Your task to perform on an android device: install app "DoorDash - Food Delivery" Image 0: 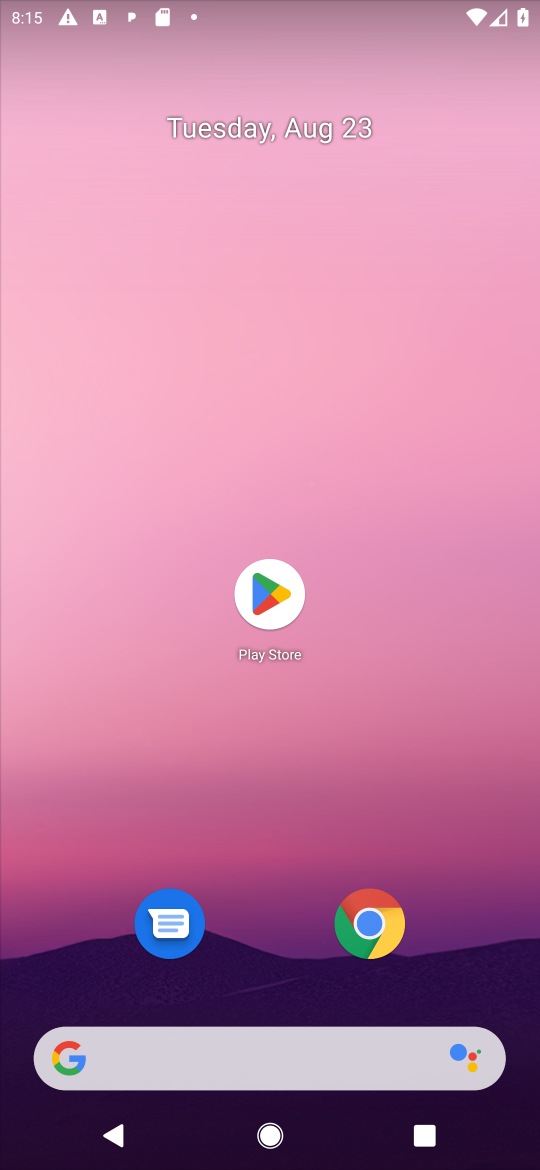
Step 0: click (276, 597)
Your task to perform on an android device: install app "DoorDash - Food Delivery" Image 1: 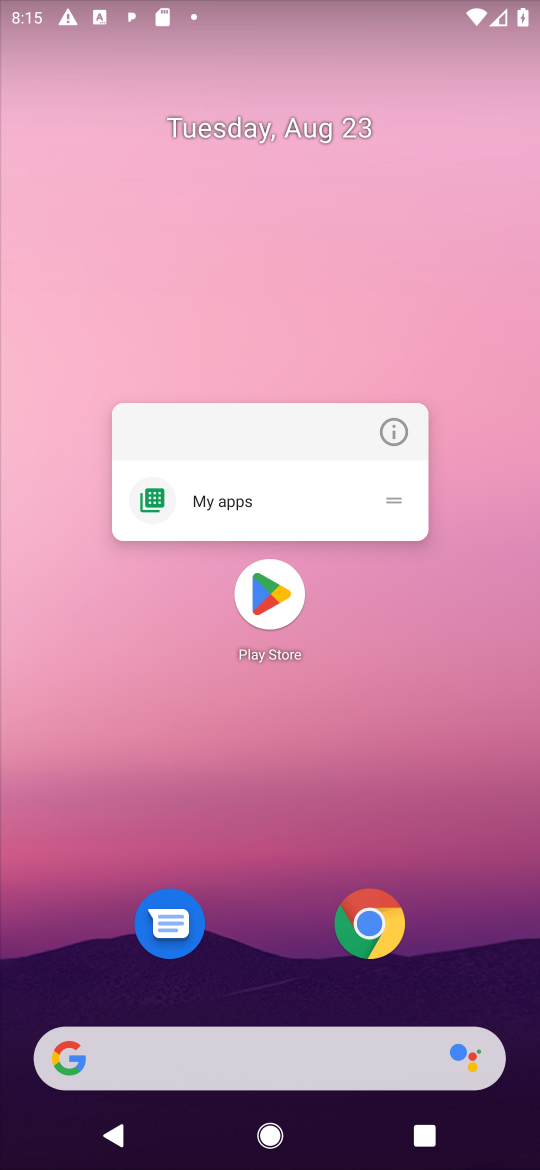
Step 1: click (271, 602)
Your task to perform on an android device: install app "DoorDash - Food Delivery" Image 2: 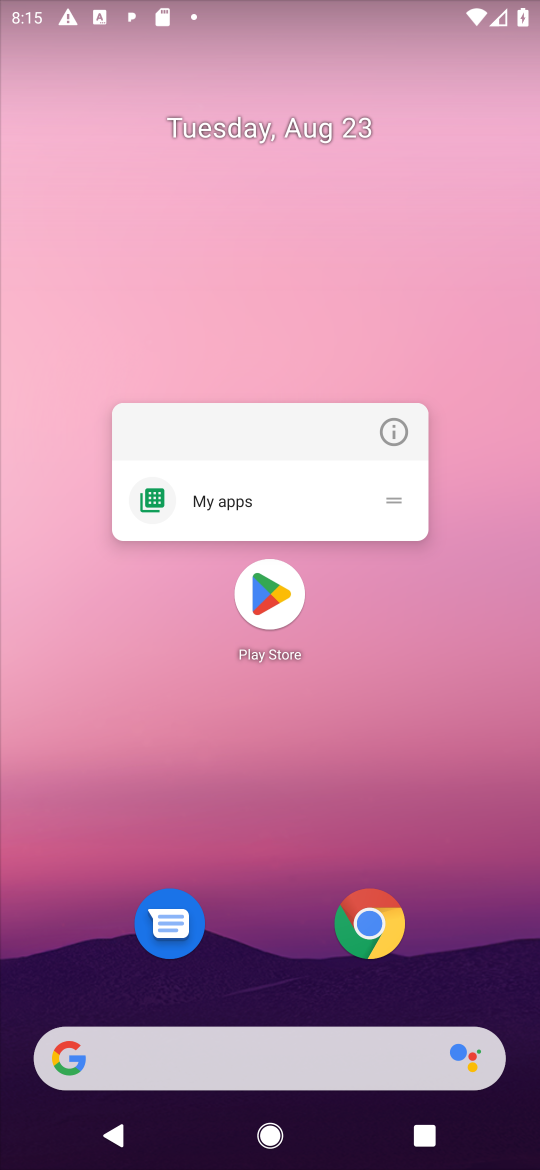
Step 2: click (267, 596)
Your task to perform on an android device: install app "DoorDash - Food Delivery" Image 3: 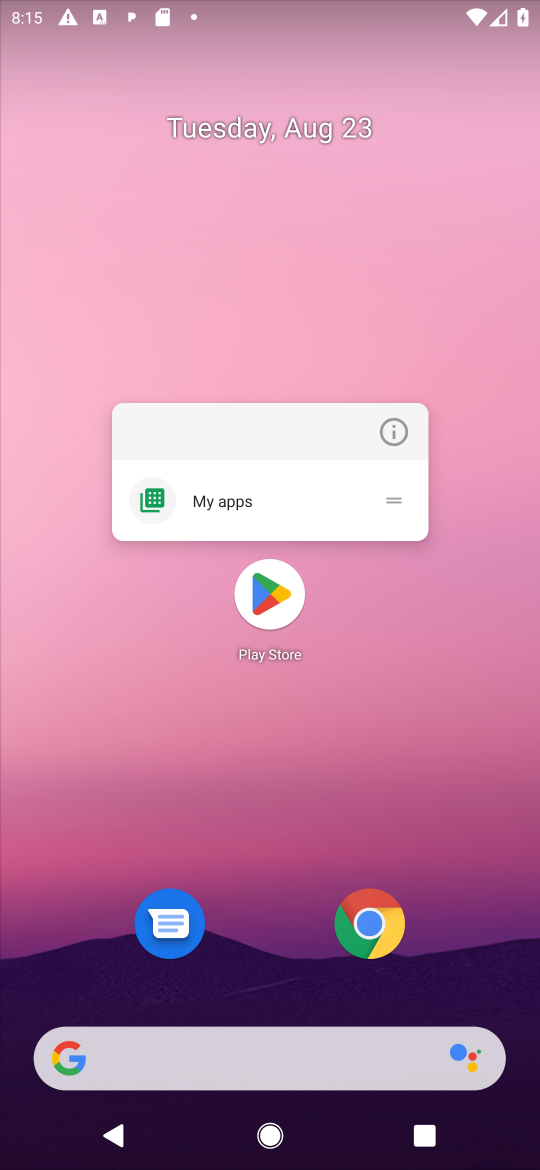
Step 3: click (267, 607)
Your task to perform on an android device: install app "DoorDash - Food Delivery" Image 4: 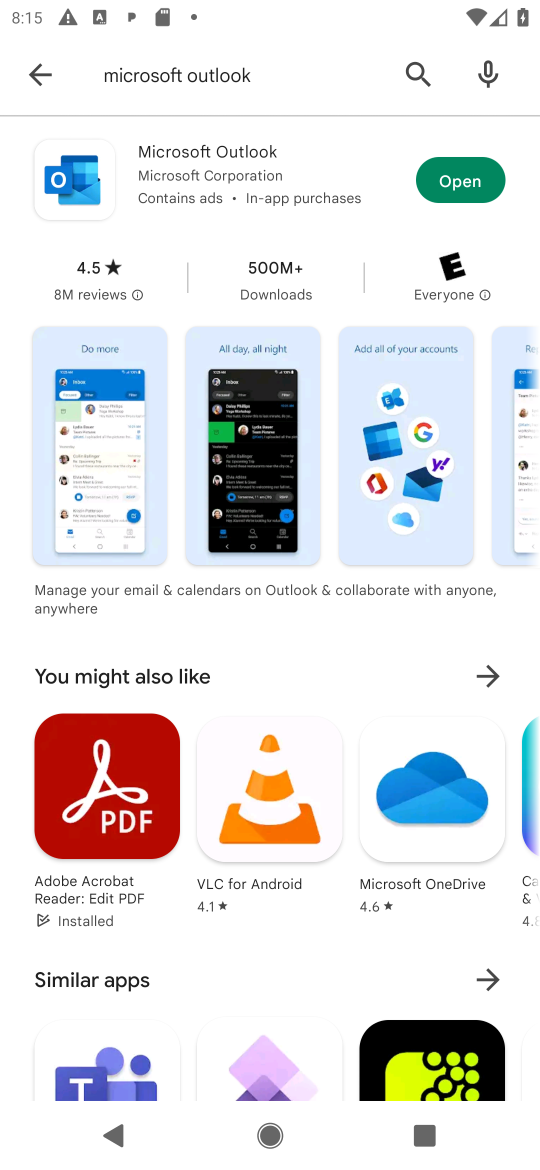
Step 4: click (419, 67)
Your task to perform on an android device: install app "DoorDash - Food Delivery" Image 5: 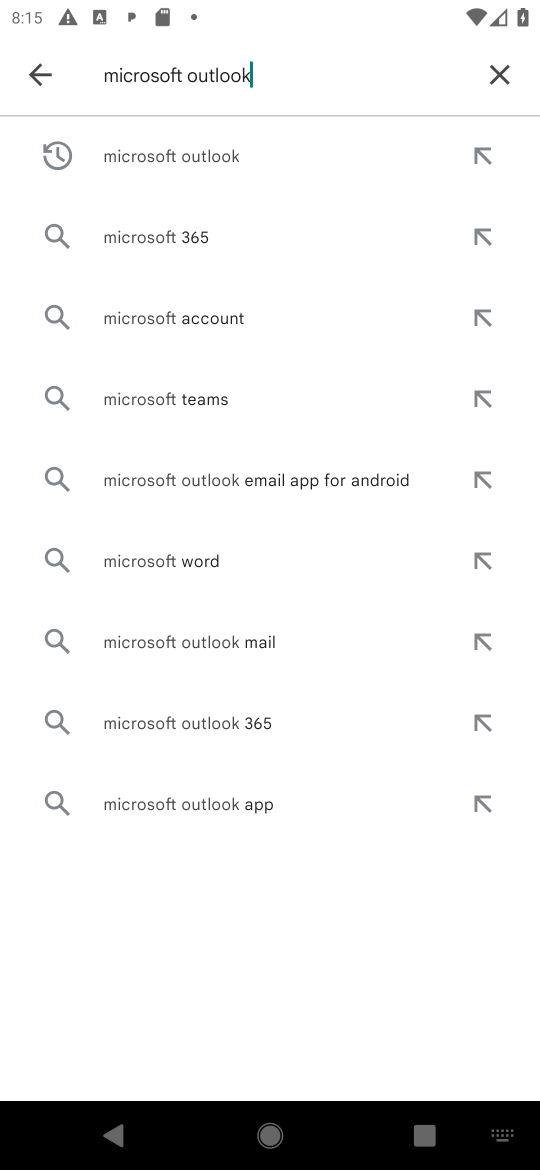
Step 5: click (499, 81)
Your task to perform on an android device: install app "DoorDash - Food Delivery" Image 6: 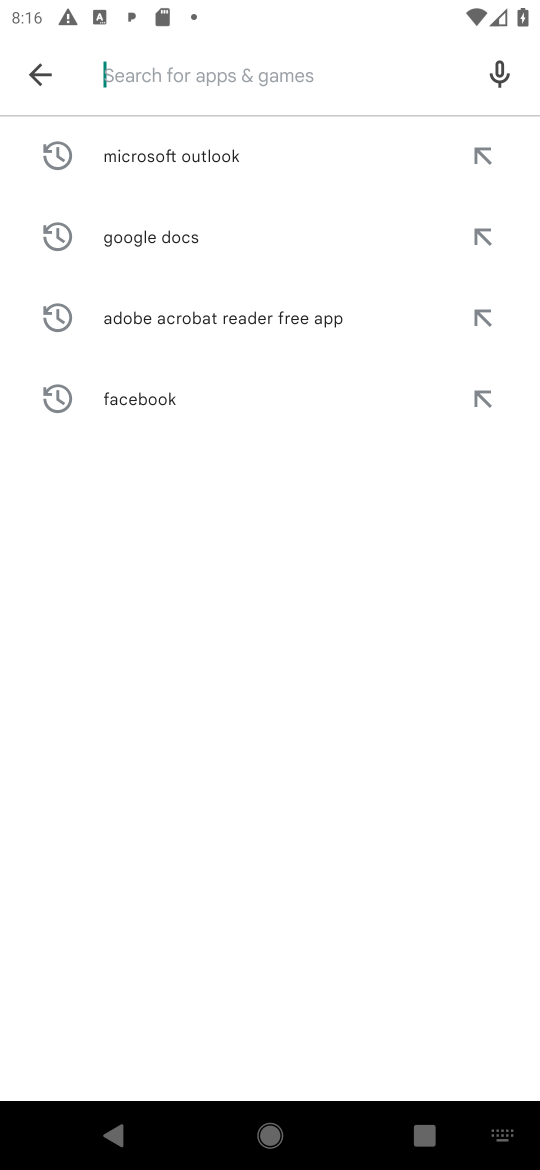
Step 6: type "DoorDash - Food Delivery"
Your task to perform on an android device: install app "DoorDash - Food Delivery" Image 7: 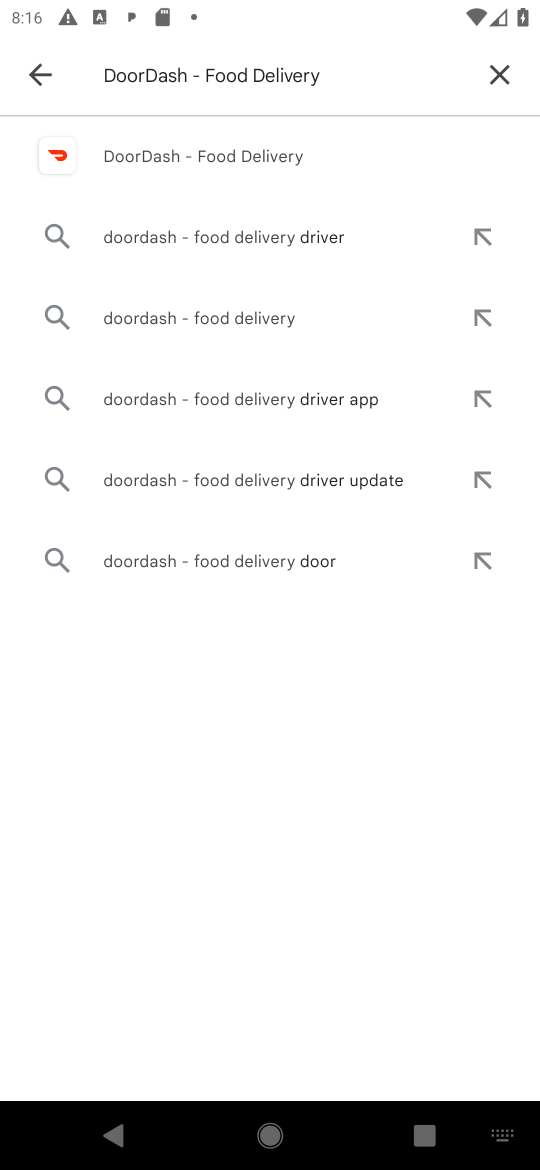
Step 7: click (256, 147)
Your task to perform on an android device: install app "DoorDash - Food Delivery" Image 8: 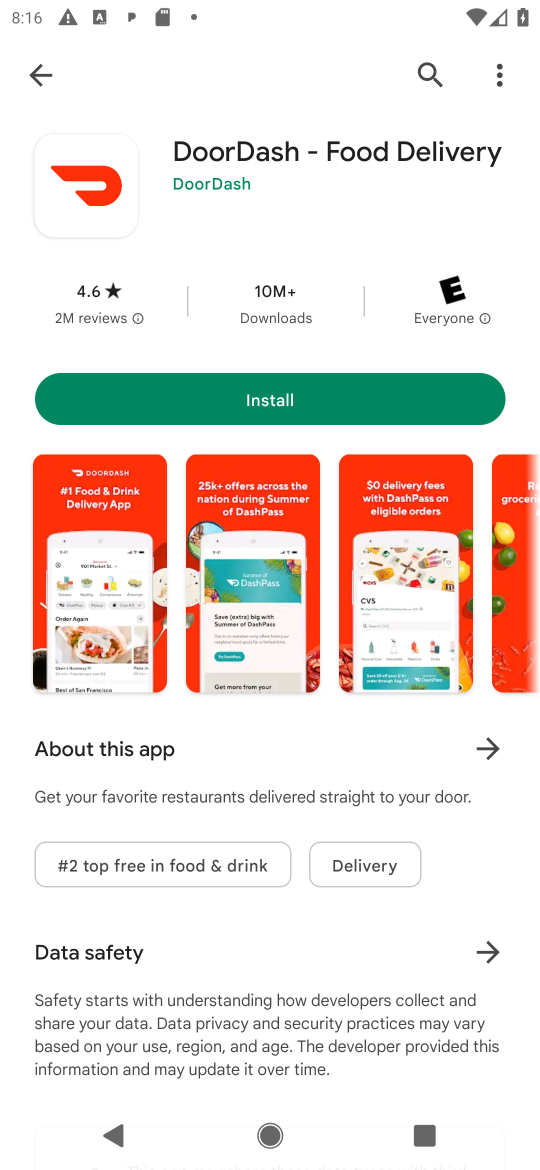
Step 8: click (295, 393)
Your task to perform on an android device: install app "DoorDash - Food Delivery" Image 9: 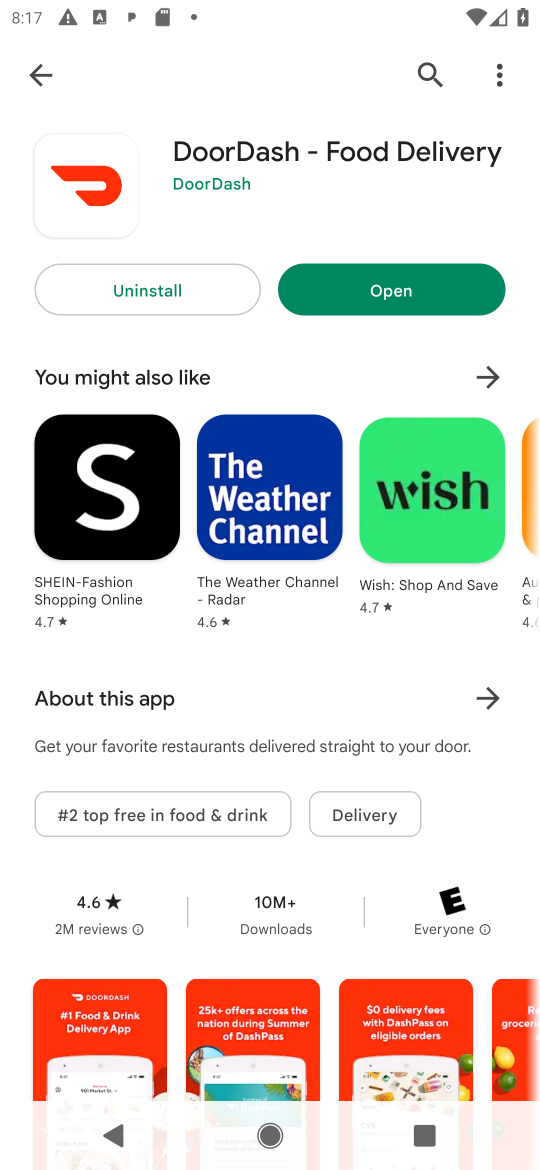
Step 9: task complete